Your task to perform on an android device: Open my contact list Image 0: 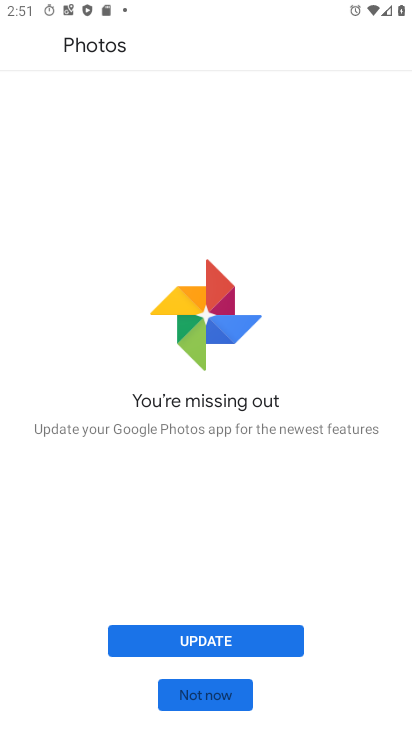
Step 0: press home button
Your task to perform on an android device: Open my contact list Image 1: 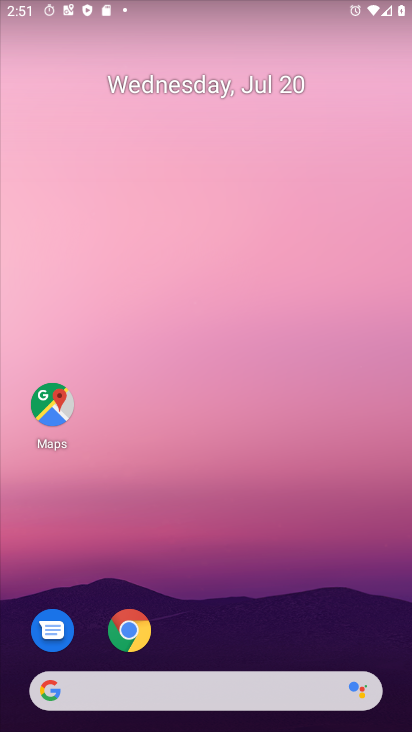
Step 1: drag from (177, 695) to (364, 41)
Your task to perform on an android device: Open my contact list Image 2: 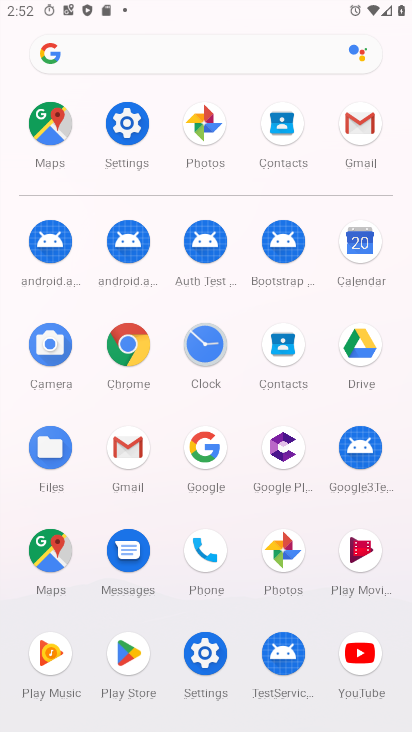
Step 2: click (284, 135)
Your task to perform on an android device: Open my contact list Image 3: 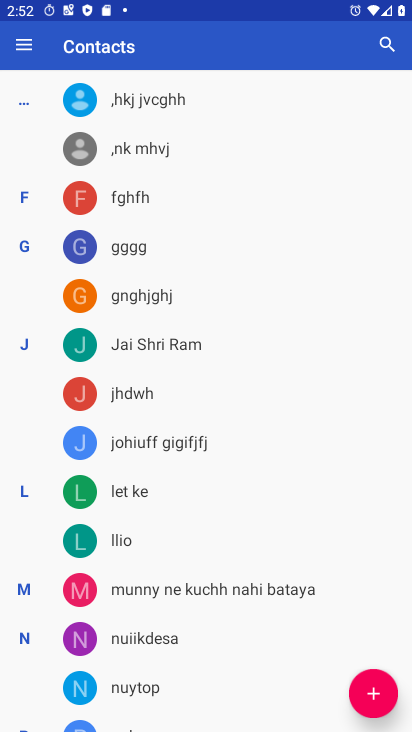
Step 3: task complete